Your task to perform on an android device: choose inbox layout in the gmail app Image 0: 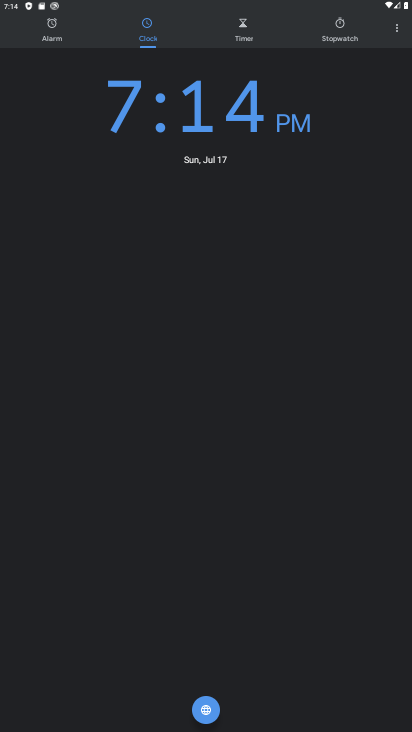
Step 0: press home button
Your task to perform on an android device: choose inbox layout in the gmail app Image 1: 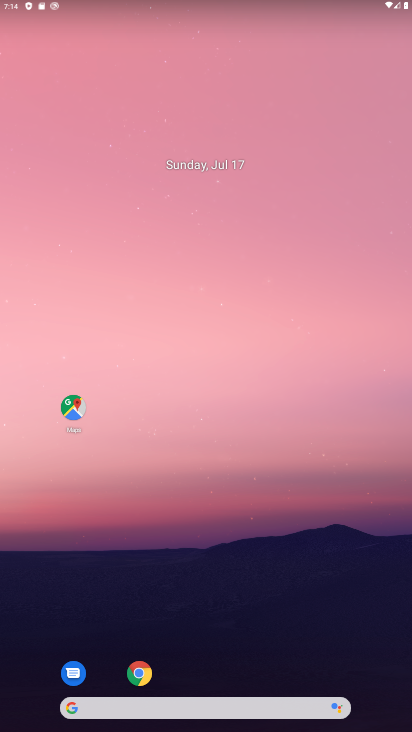
Step 1: drag from (286, 602) to (303, 7)
Your task to perform on an android device: choose inbox layout in the gmail app Image 2: 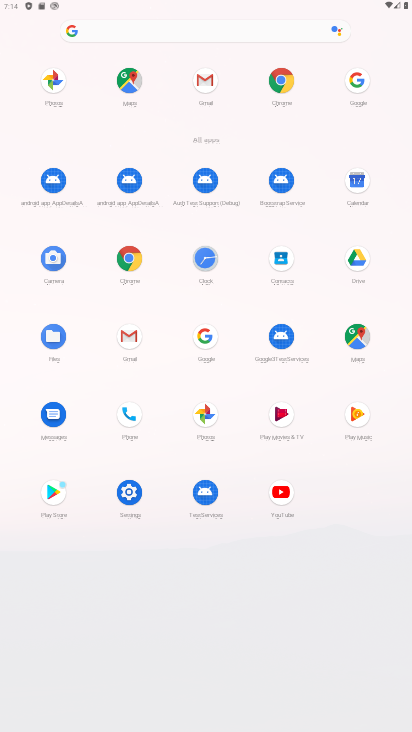
Step 2: click (203, 81)
Your task to perform on an android device: choose inbox layout in the gmail app Image 3: 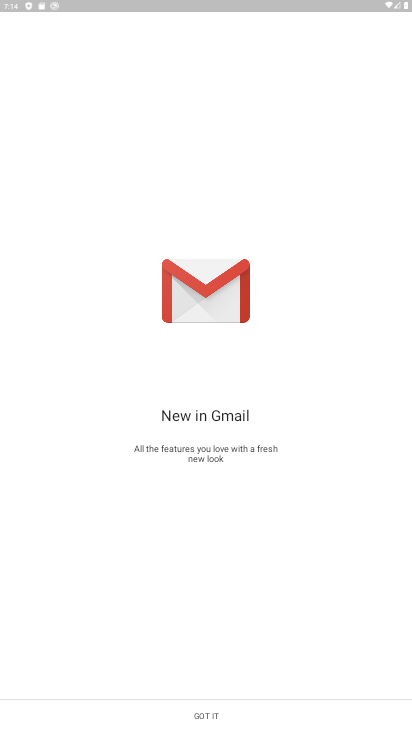
Step 3: click (209, 707)
Your task to perform on an android device: choose inbox layout in the gmail app Image 4: 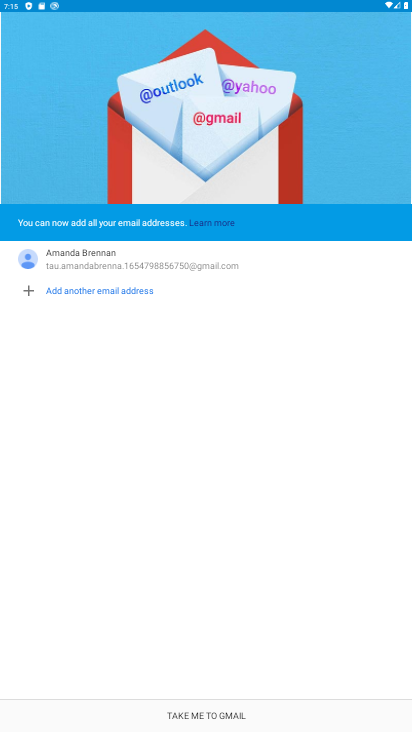
Step 4: click (209, 706)
Your task to perform on an android device: choose inbox layout in the gmail app Image 5: 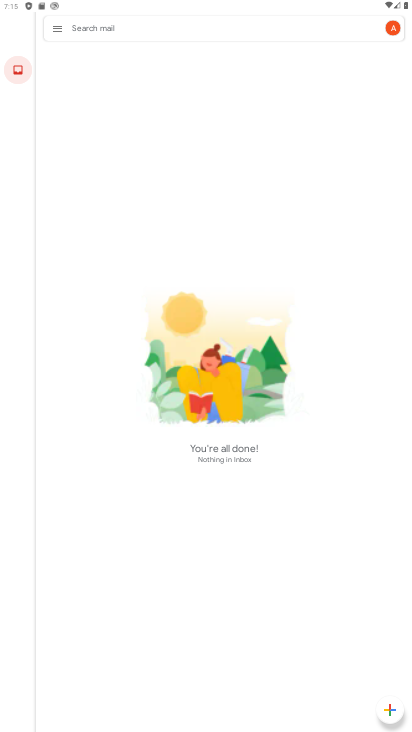
Step 5: click (53, 27)
Your task to perform on an android device: choose inbox layout in the gmail app Image 6: 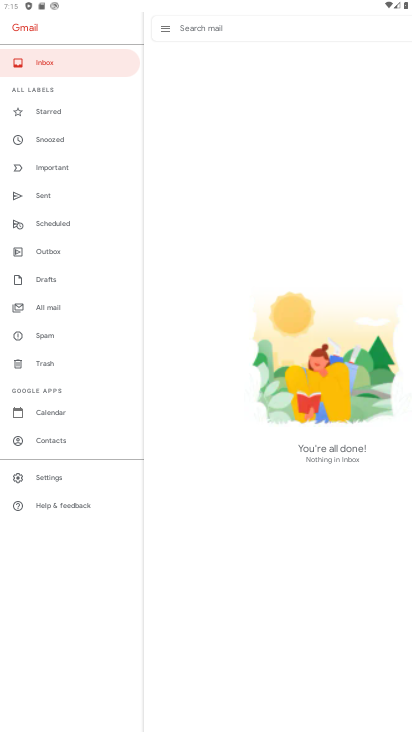
Step 6: click (53, 477)
Your task to perform on an android device: choose inbox layout in the gmail app Image 7: 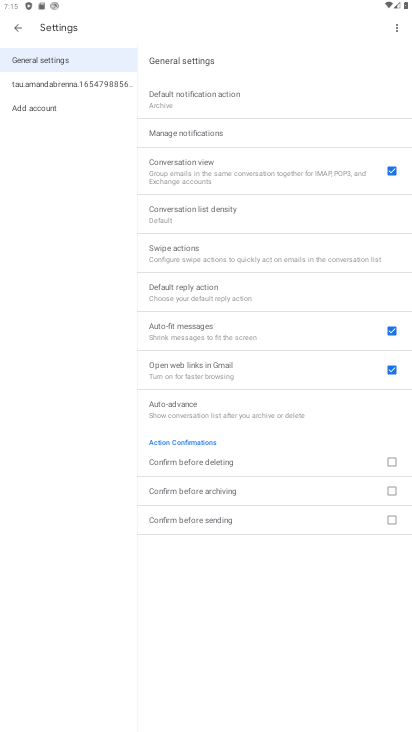
Step 7: click (55, 84)
Your task to perform on an android device: choose inbox layout in the gmail app Image 8: 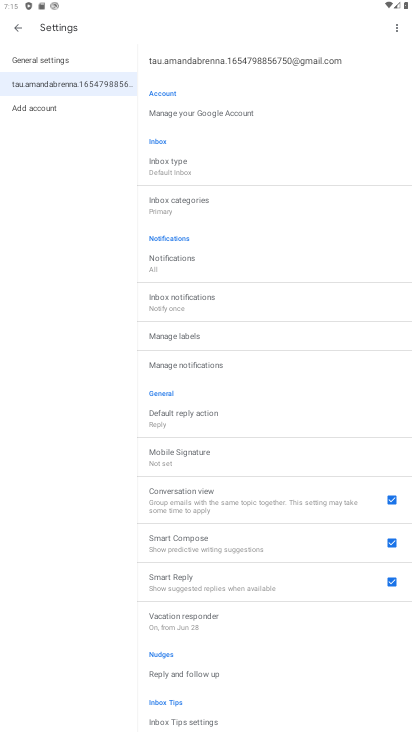
Step 8: click (176, 174)
Your task to perform on an android device: choose inbox layout in the gmail app Image 9: 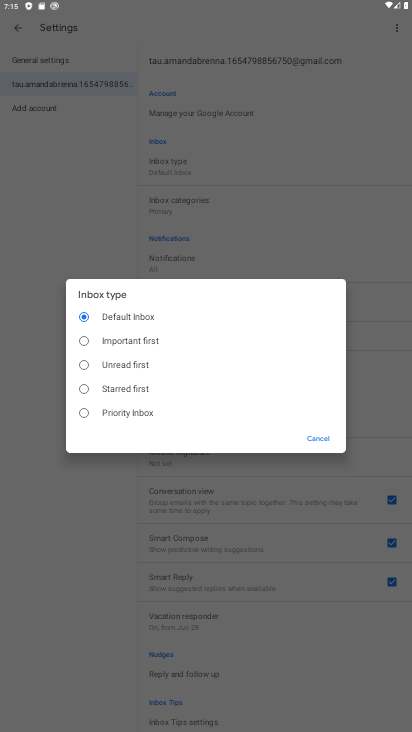
Step 9: click (137, 409)
Your task to perform on an android device: choose inbox layout in the gmail app Image 10: 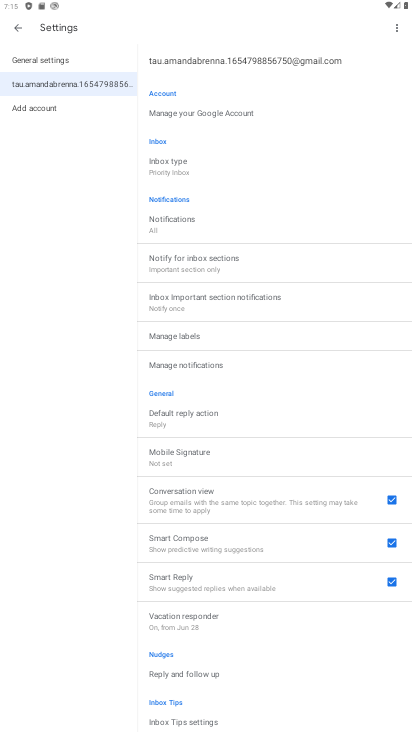
Step 10: task complete